Your task to perform on an android device: Open internet settings Image 0: 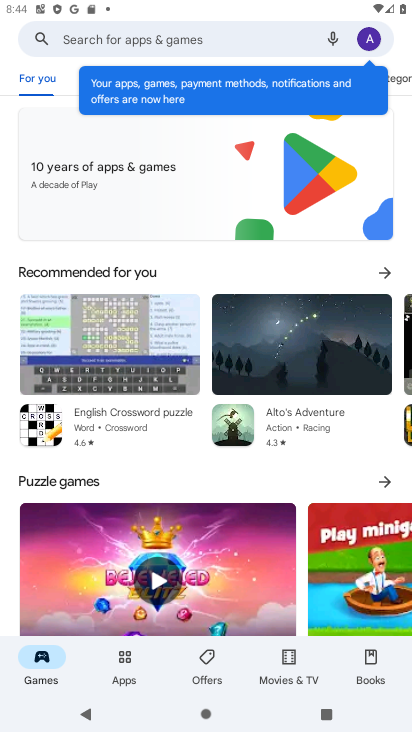
Step 0: press home button
Your task to perform on an android device: Open internet settings Image 1: 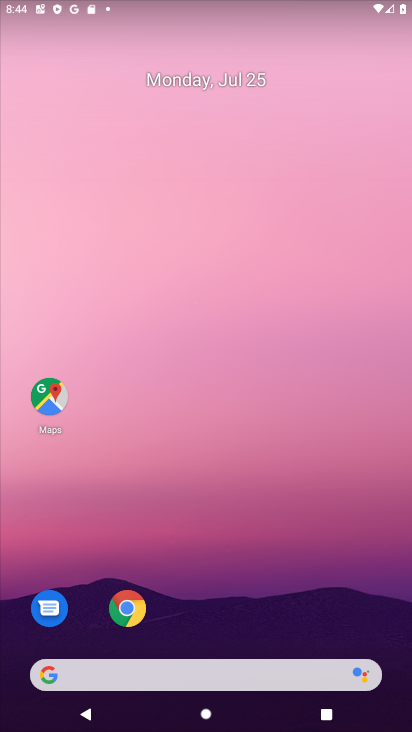
Step 1: drag from (205, 620) to (237, 234)
Your task to perform on an android device: Open internet settings Image 2: 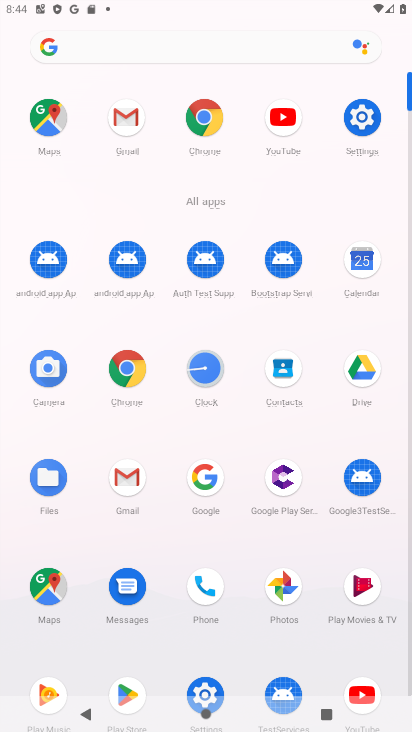
Step 2: click (372, 114)
Your task to perform on an android device: Open internet settings Image 3: 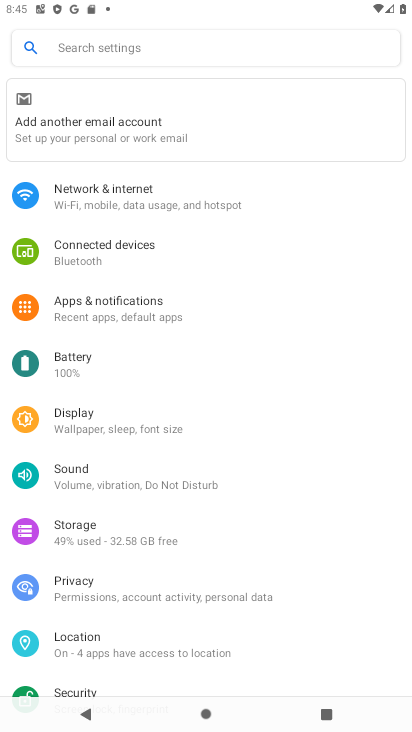
Step 3: click (140, 193)
Your task to perform on an android device: Open internet settings Image 4: 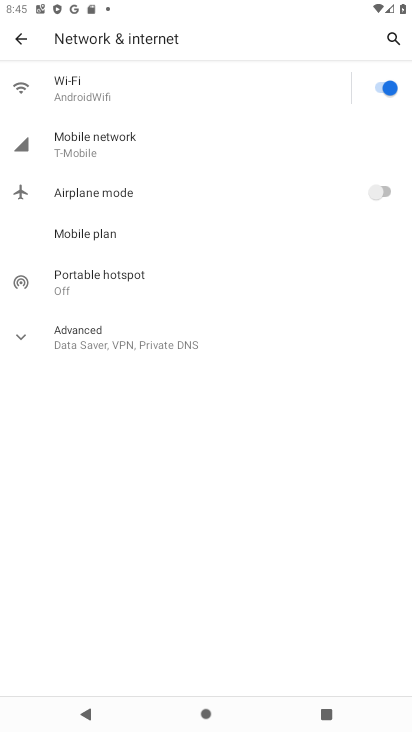
Step 4: task complete